Your task to perform on an android device: set default search engine in the chrome app Image 0: 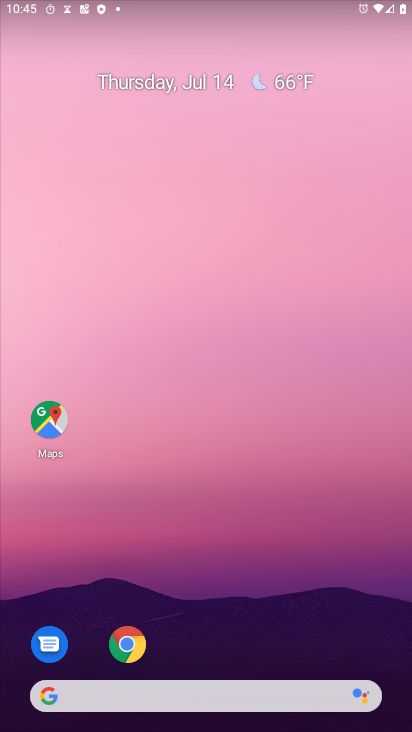
Step 0: drag from (98, 306) to (82, 160)
Your task to perform on an android device: set default search engine in the chrome app Image 1: 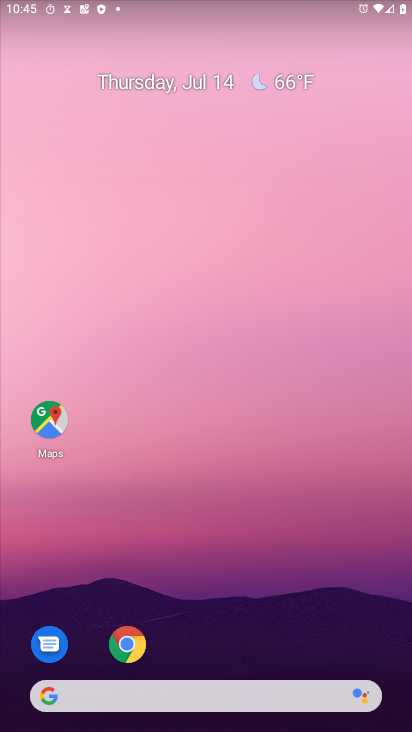
Step 1: drag from (264, 713) to (244, 90)
Your task to perform on an android device: set default search engine in the chrome app Image 2: 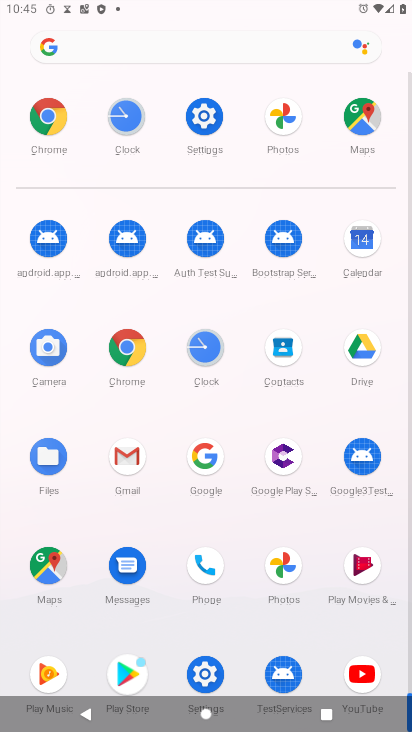
Step 2: click (137, 352)
Your task to perform on an android device: set default search engine in the chrome app Image 3: 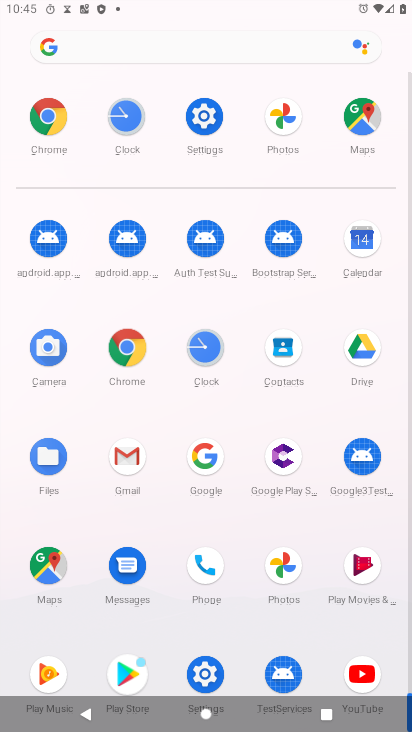
Step 3: click (137, 352)
Your task to perform on an android device: set default search engine in the chrome app Image 4: 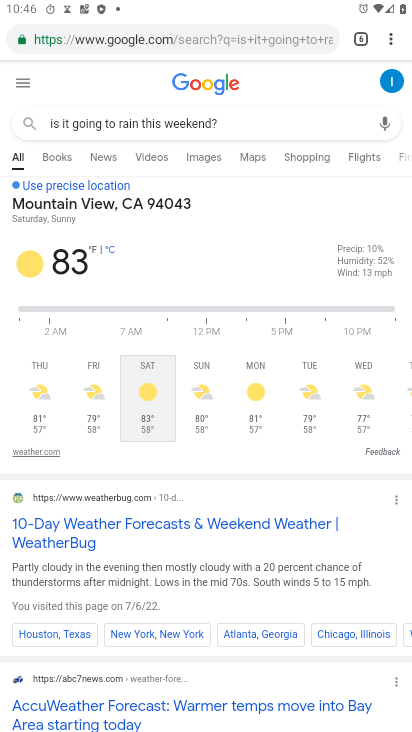
Step 4: drag from (393, 34) to (243, 440)
Your task to perform on an android device: set default search engine in the chrome app Image 5: 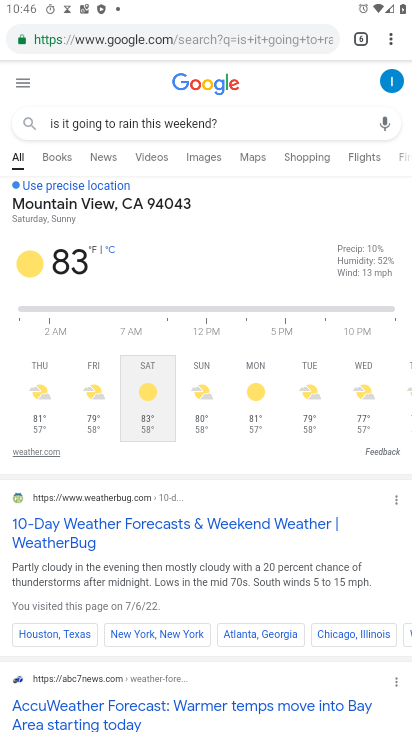
Step 5: click (242, 441)
Your task to perform on an android device: set default search engine in the chrome app Image 6: 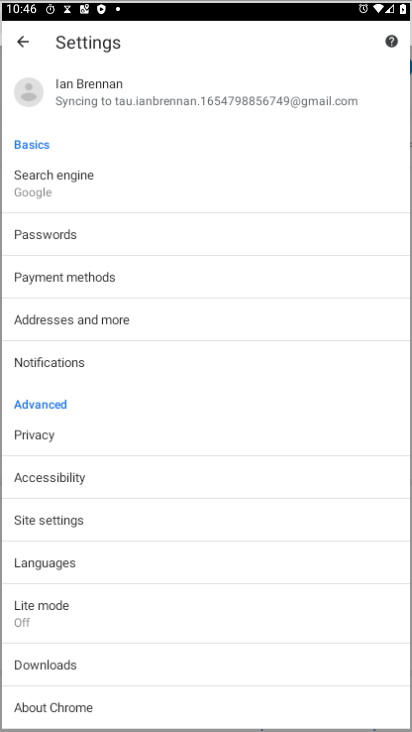
Step 6: click (249, 445)
Your task to perform on an android device: set default search engine in the chrome app Image 7: 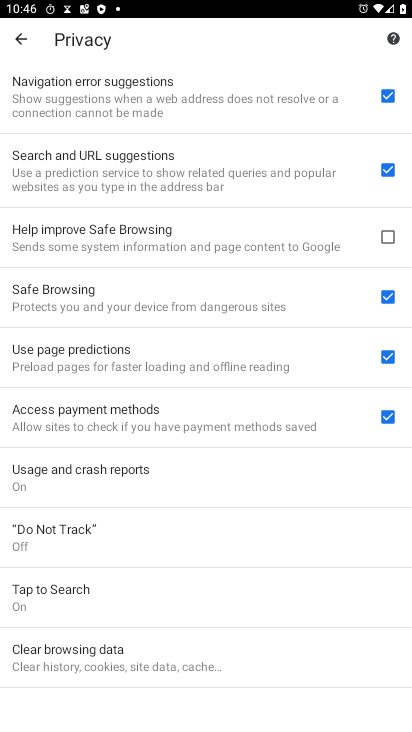
Step 7: click (29, 47)
Your task to perform on an android device: set default search engine in the chrome app Image 8: 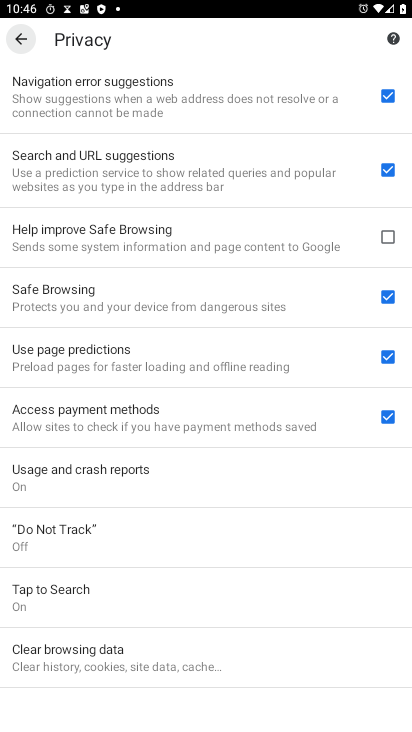
Step 8: click (29, 47)
Your task to perform on an android device: set default search engine in the chrome app Image 9: 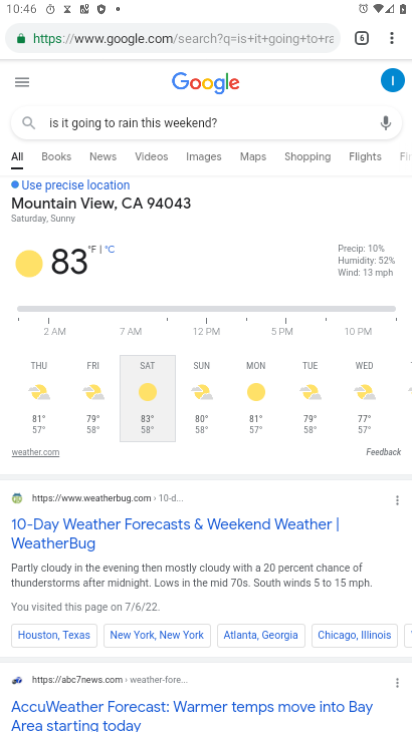
Step 9: click (35, 181)
Your task to perform on an android device: set default search engine in the chrome app Image 10: 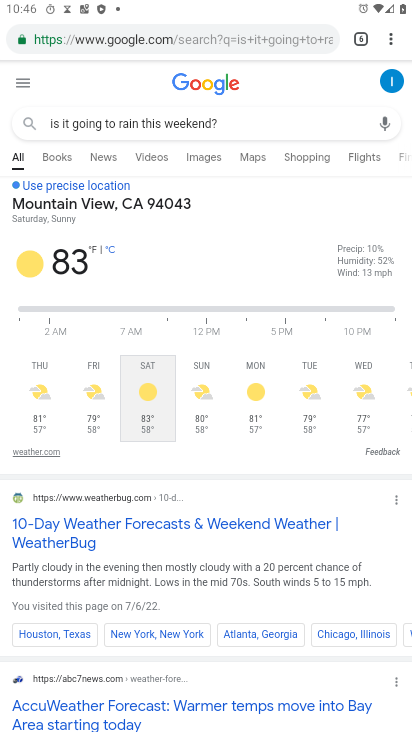
Step 10: click (34, 180)
Your task to perform on an android device: set default search engine in the chrome app Image 11: 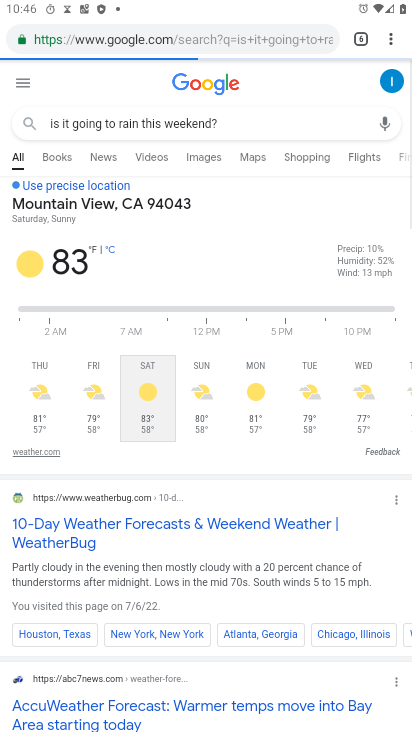
Step 11: drag from (389, 41) to (247, 436)
Your task to perform on an android device: set default search engine in the chrome app Image 12: 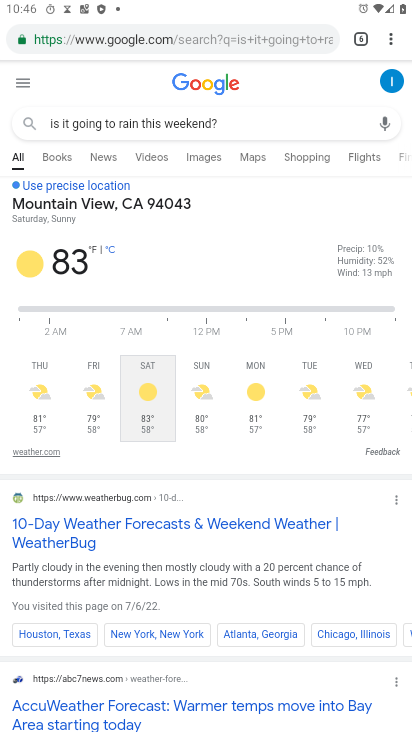
Step 12: click (247, 436)
Your task to perform on an android device: set default search engine in the chrome app Image 13: 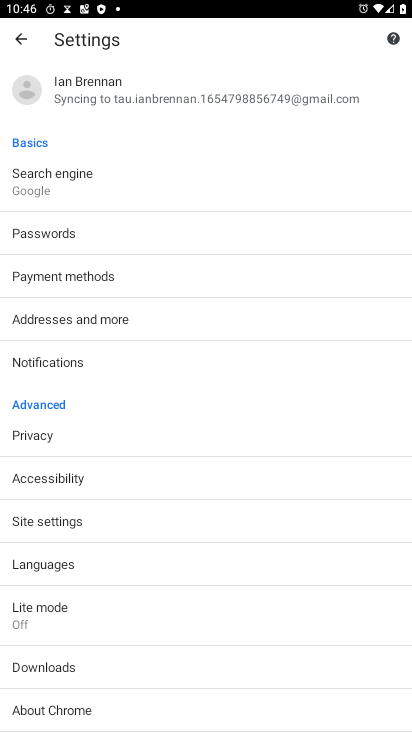
Step 13: click (1, 186)
Your task to perform on an android device: set default search engine in the chrome app Image 14: 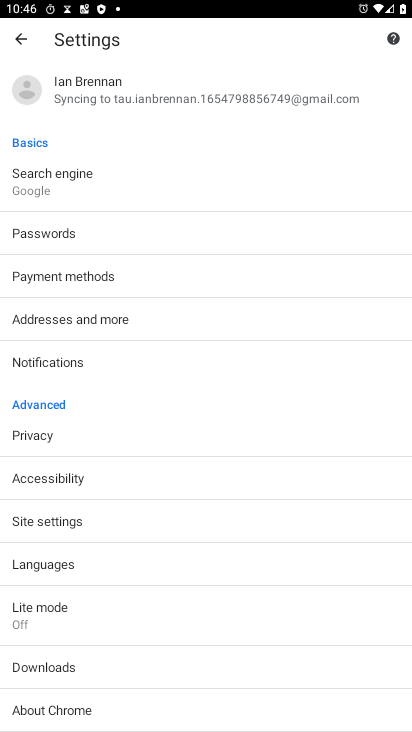
Step 14: task complete